Your task to perform on an android device: turn smart compose on in the gmail app Image 0: 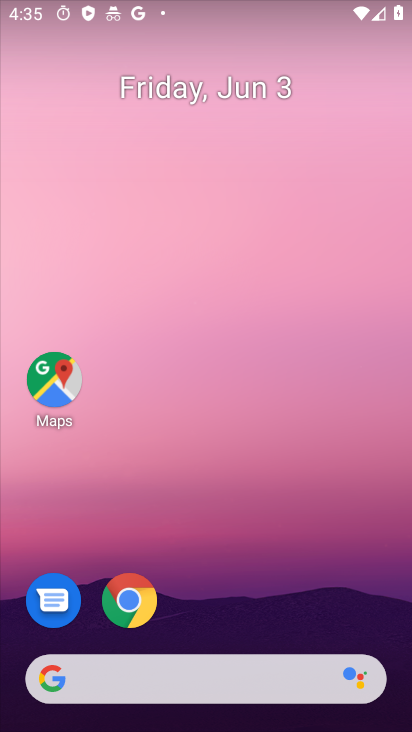
Step 0: drag from (388, 614) to (343, 148)
Your task to perform on an android device: turn smart compose on in the gmail app Image 1: 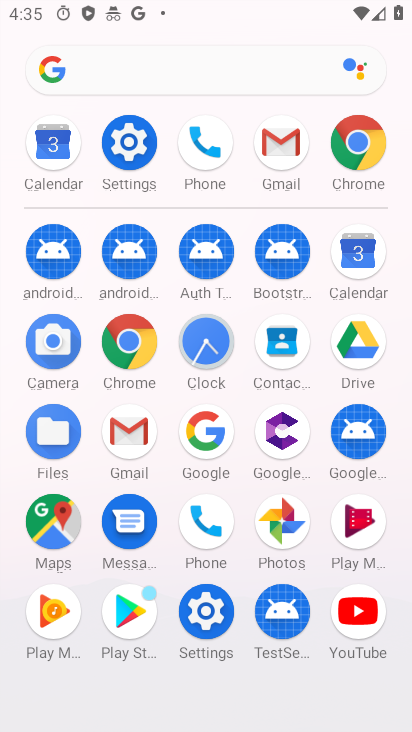
Step 1: click (278, 148)
Your task to perform on an android device: turn smart compose on in the gmail app Image 2: 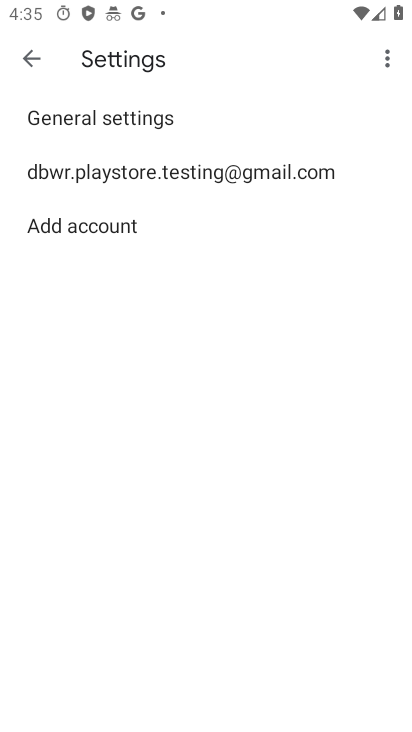
Step 2: click (110, 167)
Your task to perform on an android device: turn smart compose on in the gmail app Image 3: 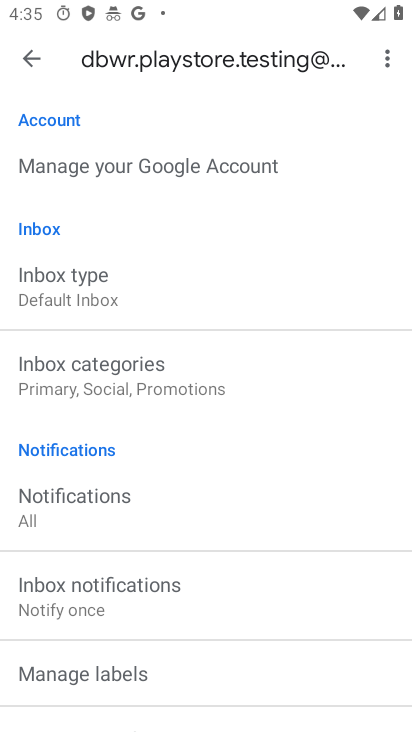
Step 3: task complete